Your task to perform on an android device: turn vacation reply on in the gmail app Image 0: 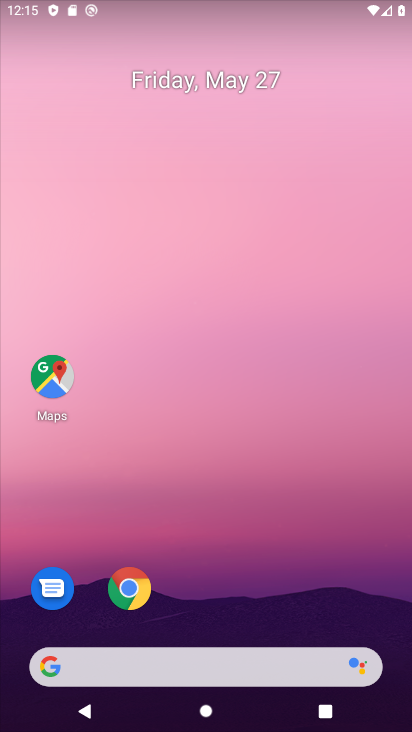
Step 0: drag from (247, 619) to (262, 0)
Your task to perform on an android device: turn vacation reply on in the gmail app Image 1: 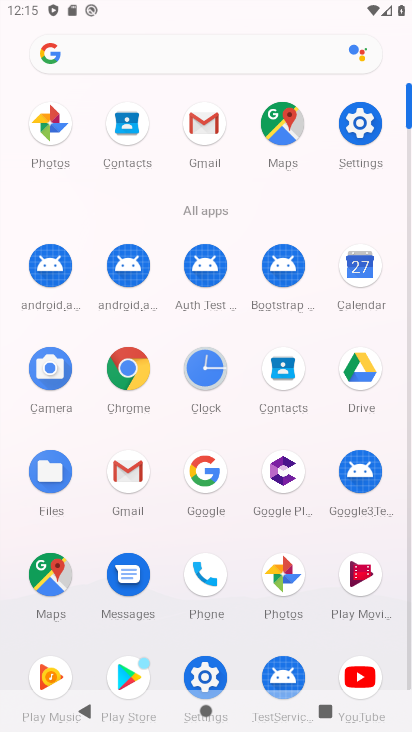
Step 1: click (202, 117)
Your task to perform on an android device: turn vacation reply on in the gmail app Image 2: 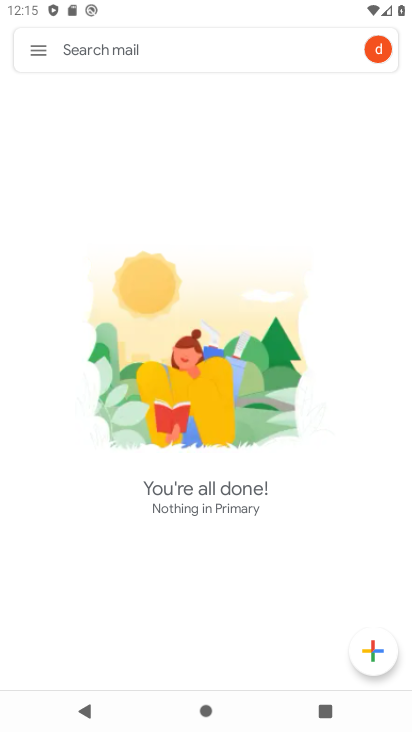
Step 2: click (27, 49)
Your task to perform on an android device: turn vacation reply on in the gmail app Image 3: 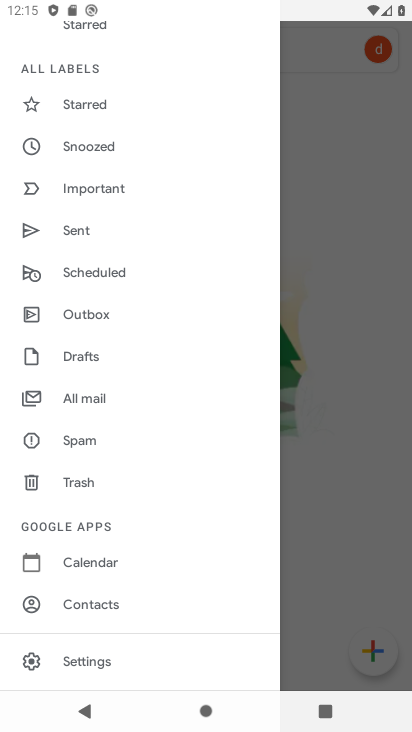
Step 3: click (130, 659)
Your task to perform on an android device: turn vacation reply on in the gmail app Image 4: 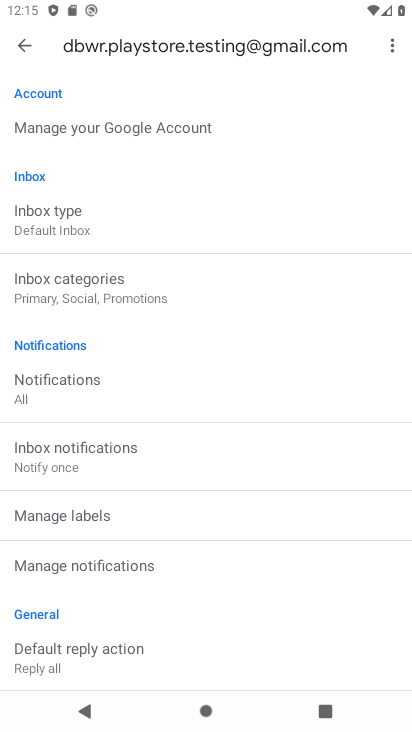
Step 4: drag from (145, 603) to (147, 127)
Your task to perform on an android device: turn vacation reply on in the gmail app Image 5: 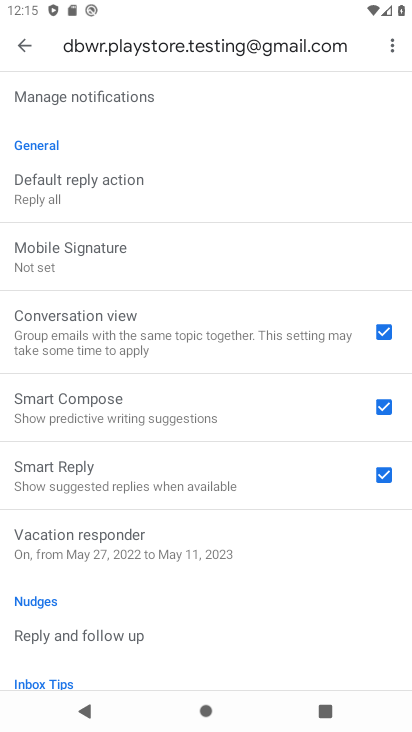
Step 5: click (144, 531)
Your task to perform on an android device: turn vacation reply on in the gmail app Image 6: 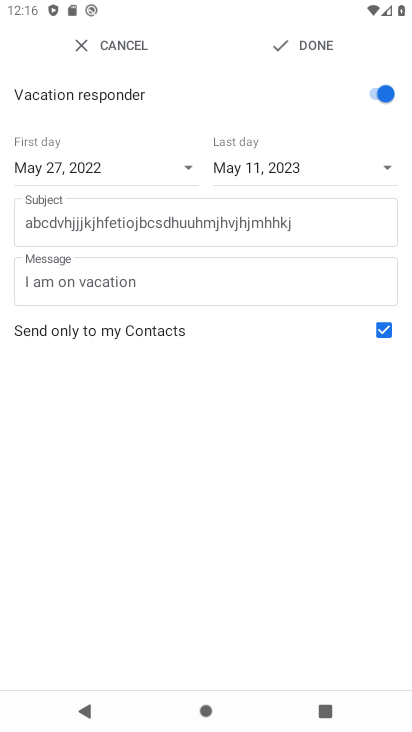
Step 6: task complete